Your task to perform on an android device: turn off wifi Image 0: 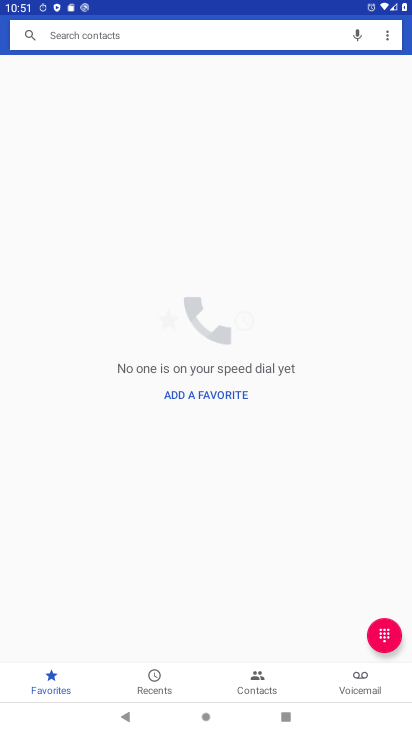
Step 0: press back button
Your task to perform on an android device: turn off wifi Image 1: 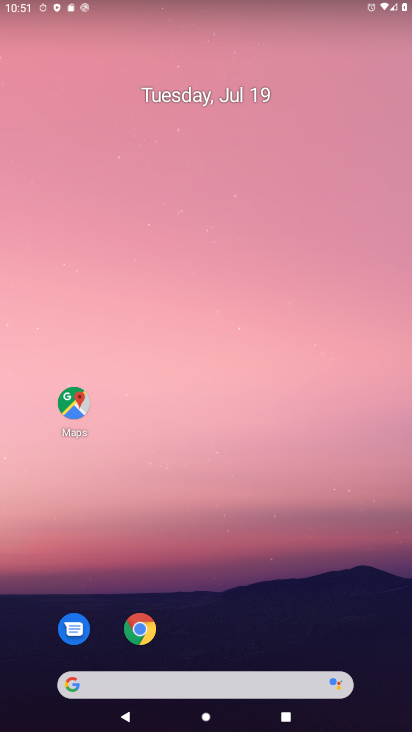
Step 1: drag from (240, 688) to (159, 162)
Your task to perform on an android device: turn off wifi Image 2: 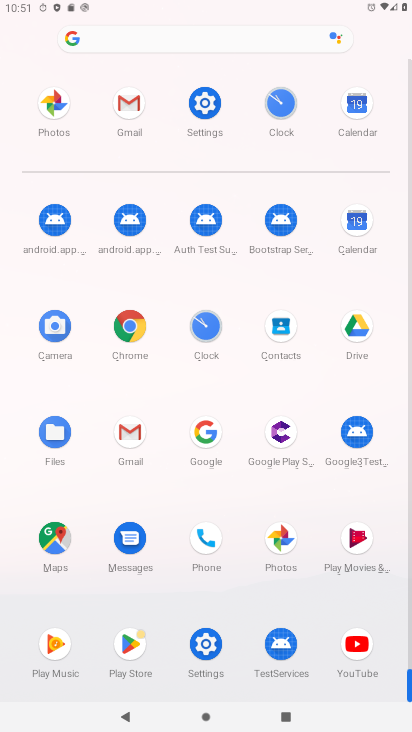
Step 2: click (199, 104)
Your task to perform on an android device: turn off wifi Image 3: 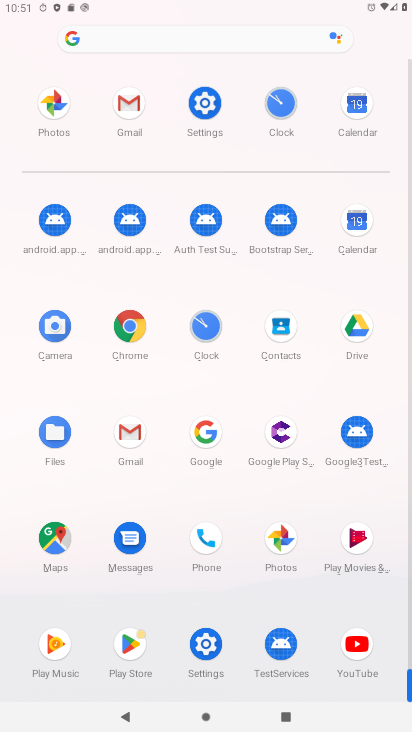
Step 3: click (199, 104)
Your task to perform on an android device: turn off wifi Image 4: 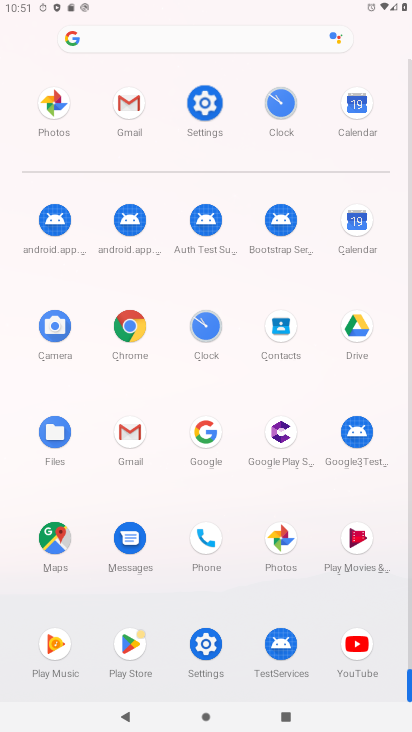
Step 4: click (199, 104)
Your task to perform on an android device: turn off wifi Image 5: 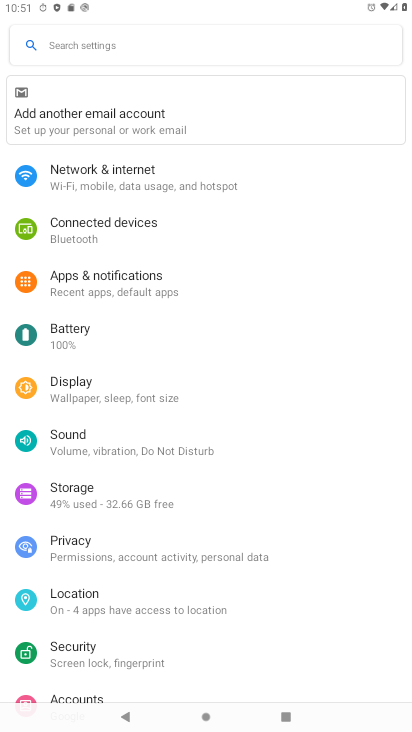
Step 5: click (112, 168)
Your task to perform on an android device: turn off wifi Image 6: 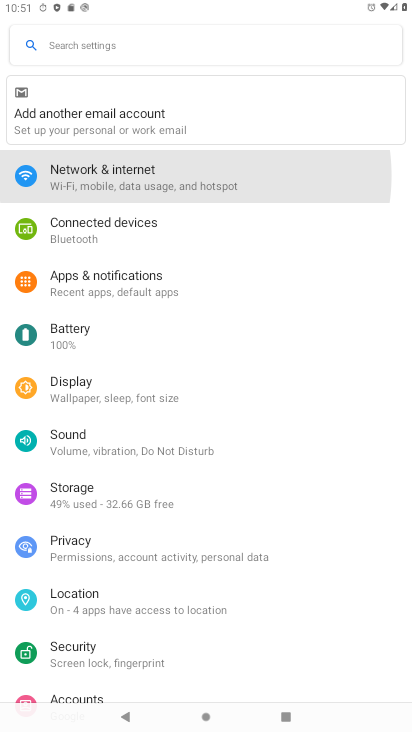
Step 6: click (114, 172)
Your task to perform on an android device: turn off wifi Image 7: 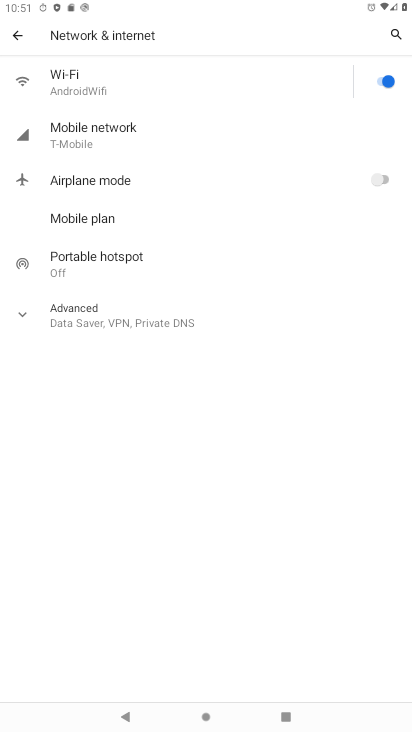
Step 7: click (118, 167)
Your task to perform on an android device: turn off wifi Image 8: 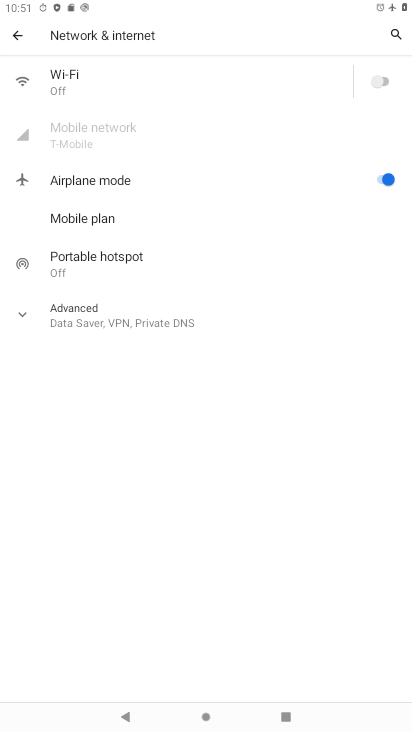
Step 8: task complete